Your task to perform on an android device: find which apps use the phone's location Image 0: 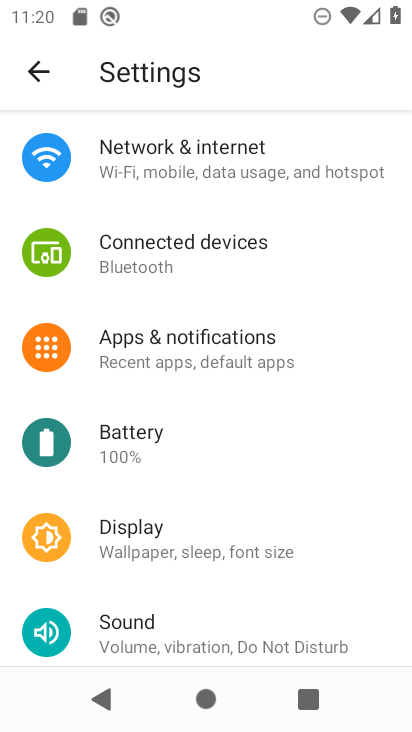
Step 0: drag from (190, 580) to (161, 275)
Your task to perform on an android device: find which apps use the phone's location Image 1: 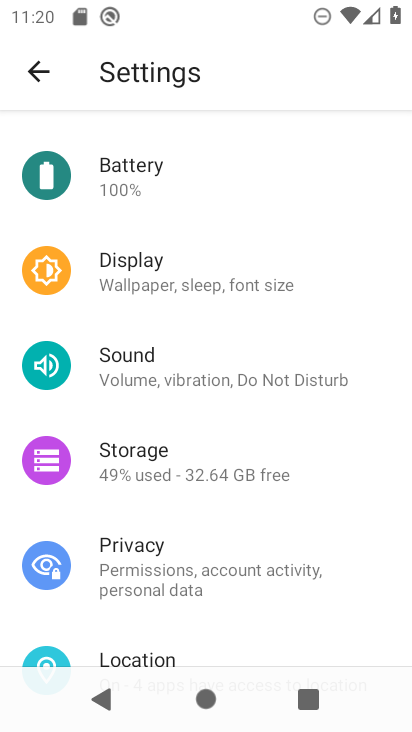
Step 1: click (120, 646)
Your task to perform on an android device: find which apps use the phone's location Image 2: 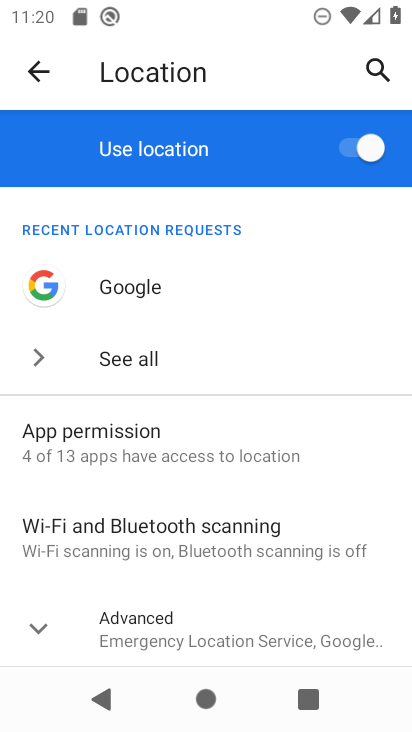
Step 2: click (178, 609)
Your task to perform on an android device: find which apps use the phone's location Image 3: 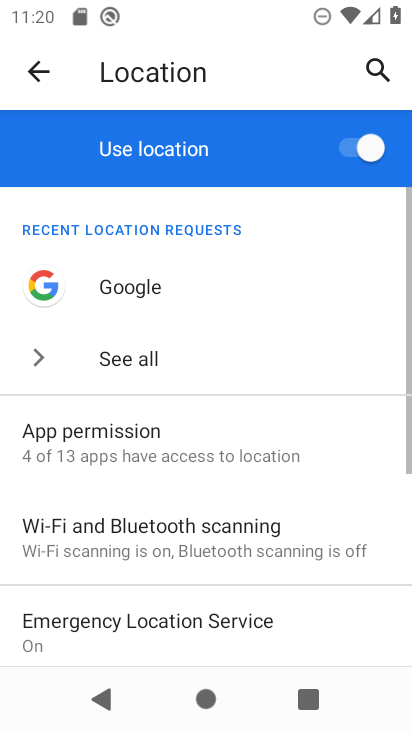
Step 3: click (143, 458)
Your task to perform on an android device: find which apps use the phone's location Image 4: 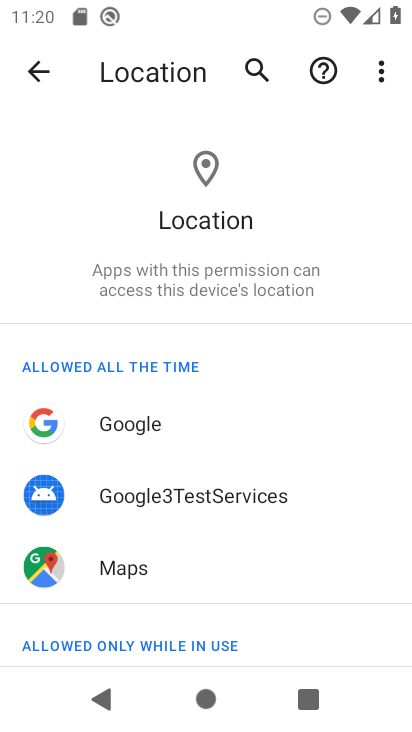
Step 4: task complete